Your task to perform on an android device: Open the calendar app, open the side menu, and click the "Day" option Image 0: 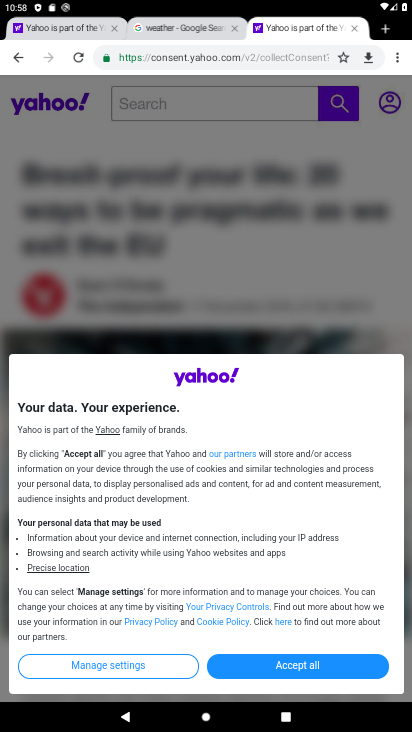
Step 0: press home button
Your task to perform on an android device: Open the calendar app, open the side menu, and click the "Day" option Image 1: 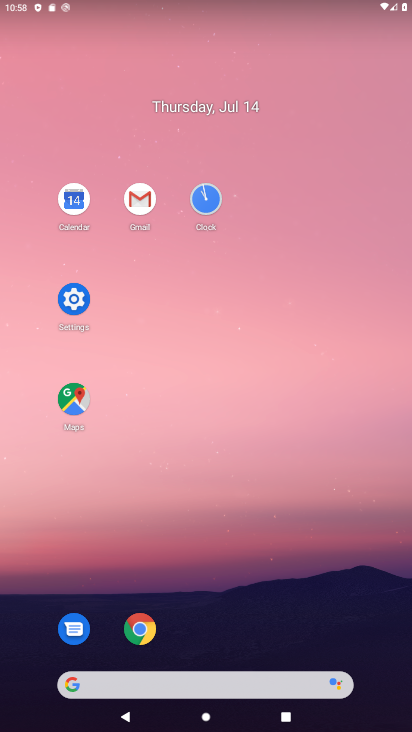
Step 1: drag from (253, 638) to (280, 261)
Your task to perform on an android device: Open the calendar app, open the side menu, and click the "Day" option Image 2: 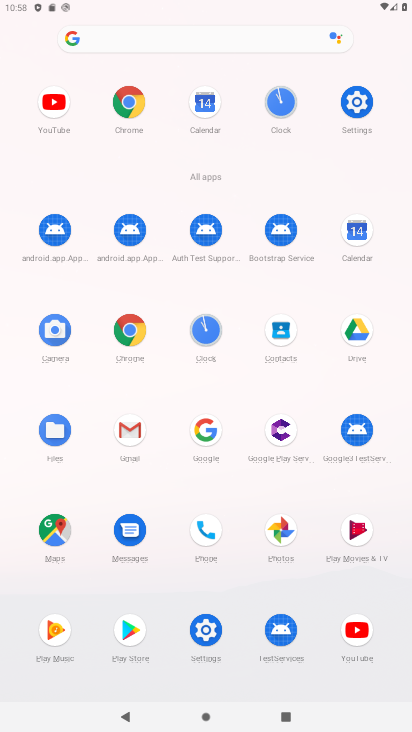
Step 2: drag from (356, 227) to (163, 263)
Your task to perform on an android device: Open the calendar app, open the side menu, and click the "Day" option Image 3: 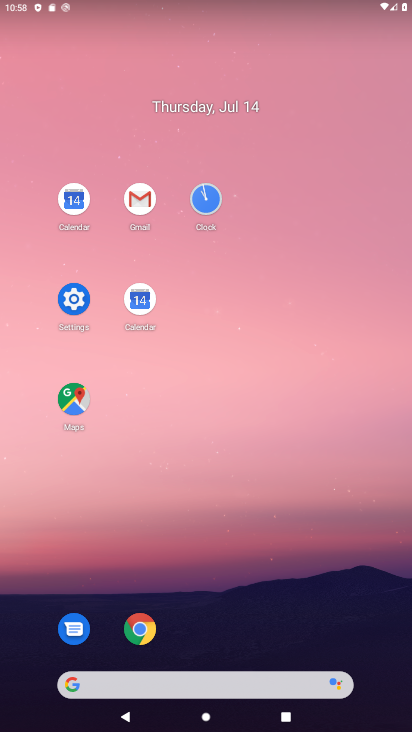
Step 3: click (136, 298)
Your task to perform on an android device: Open the calendar app, open the side menu, and click the "Day" option Image 4: 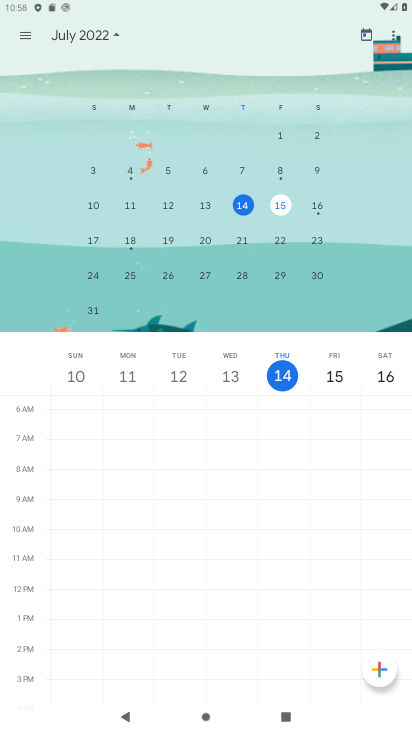
Step 4: click (34, 39)
Your task to perform on an android device: Open the calendar app, open the side menu, and click the "Day" option Image 5: 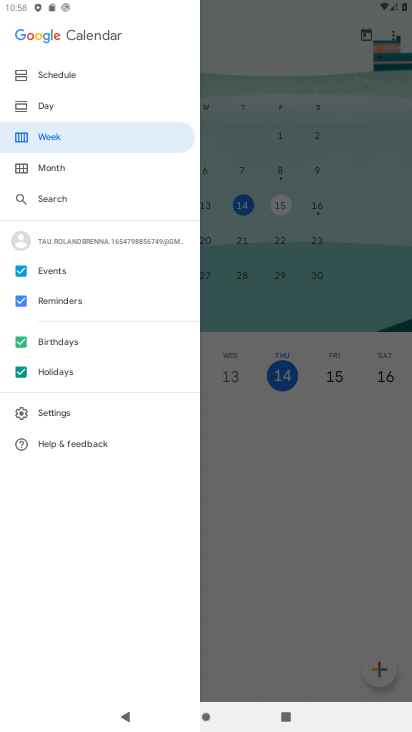
Step 5: click (72, 108)
Your task to perform on an android device: Open the calendar app, open the side menu, and click the "Day" option Image 6: 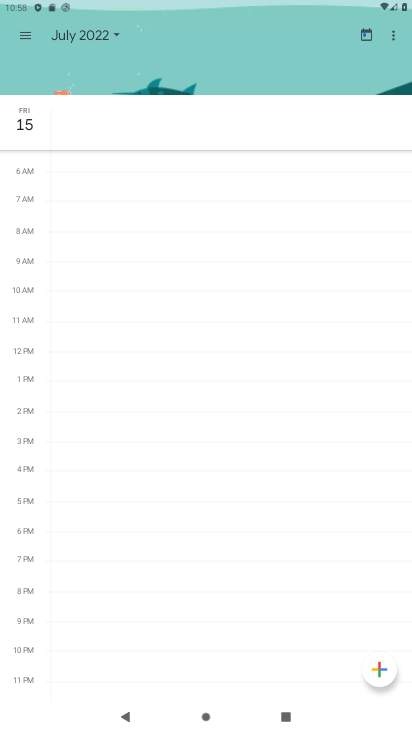
Step 6: task complete